Your task to perform on an android device: Open the stopwatch Image 0: 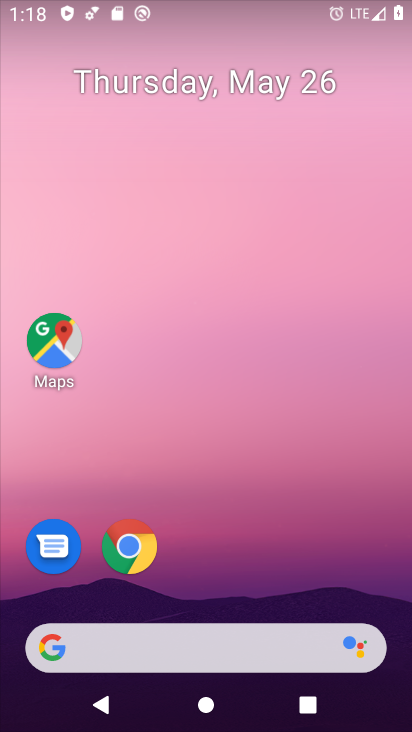
Step 0: drag from (396, 601) to (310, 101)
Your task to perform on an android device: Open the stopwatch Image 1: 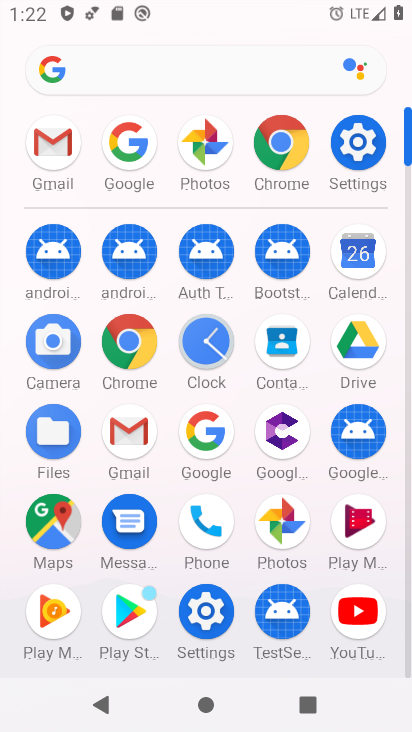
Step 1: click (190, 361)
Your task to perform on an android device: Open the stopwatch Image 2: 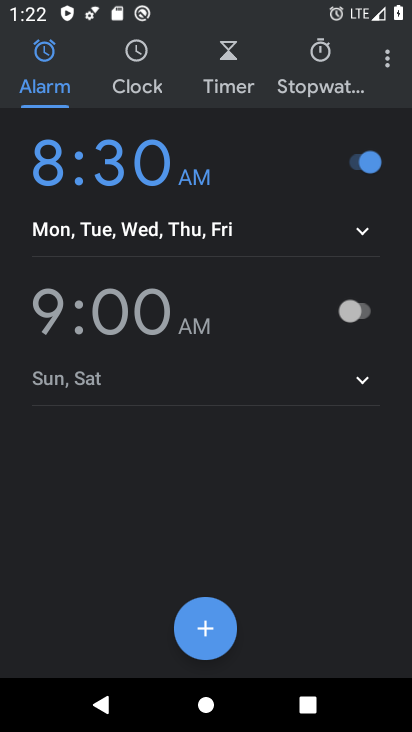
Step 2: click (319, 66)
Your task to perform on an android device: Open the stopwatch Image 3: 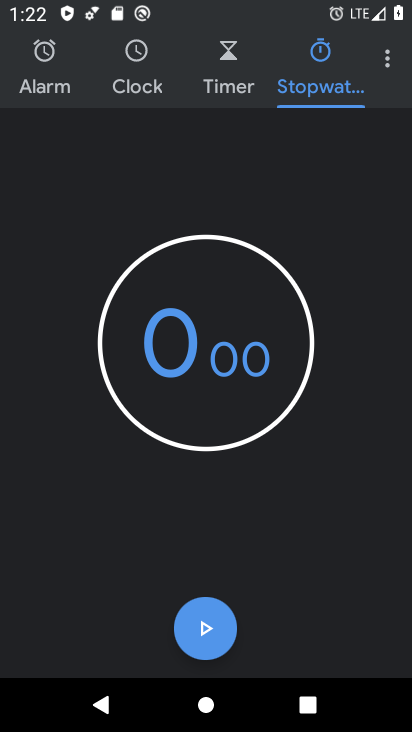
Step 3: task complete